Your task to perform on an android device: Open Google Chrome and open the bookmarks view Image 0: 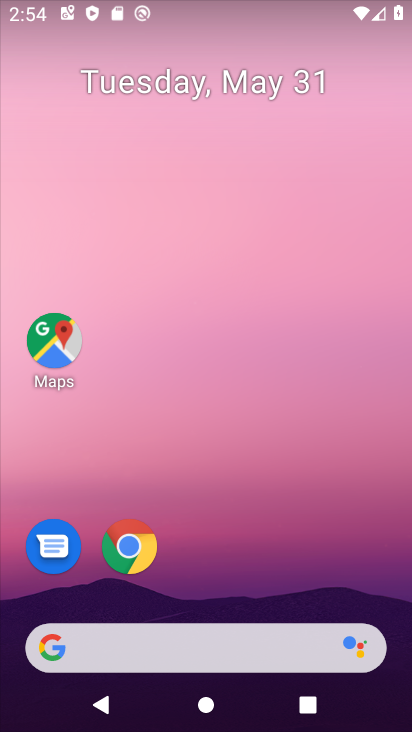
Step 0: click (137, 553)
Your task to perform on an android device: Open Google Chrome and open the bookmarks view Image 1: 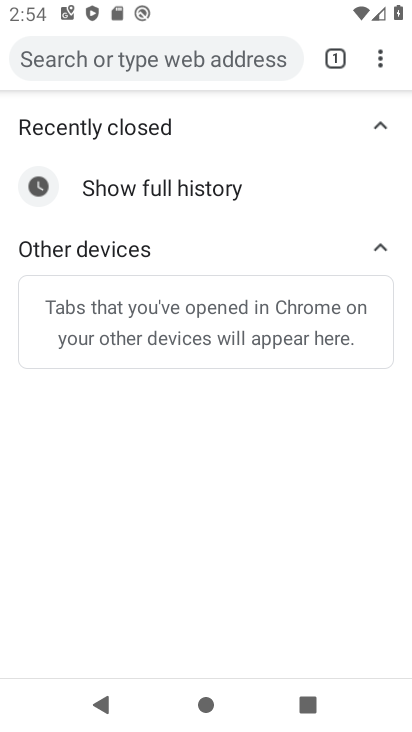
Step 1: click (375, 56)
Your task to perform on an android device: Open Google Chrome and open the bookmarks view Image 2: 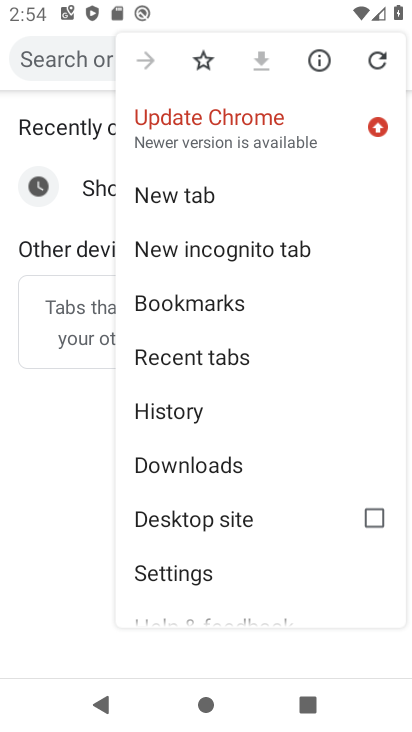
Step 2: click (224, 294)
Your task to perform on an android device: Open Google Chrome and open the bookmarks view Image 3: 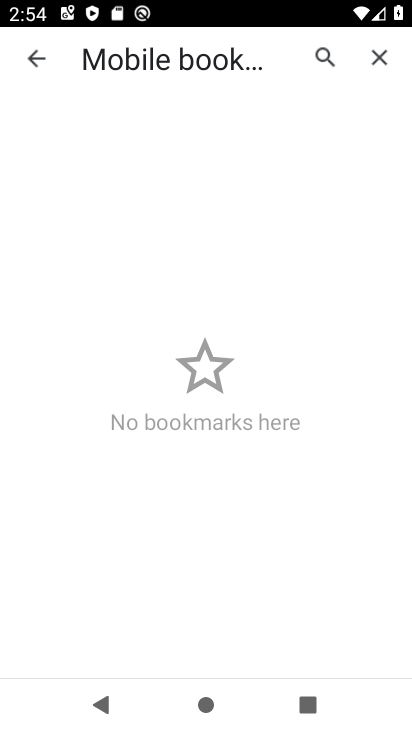
Step 3: task complete